Your task to perform on an android device: Open sound settings Image 0: 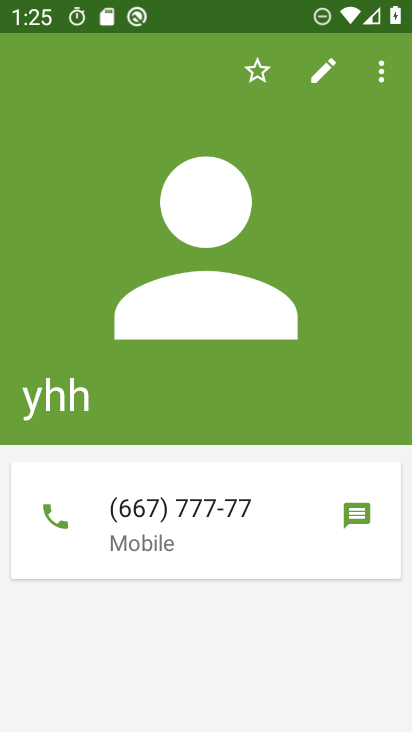
Step 0: press home button
Your task to perform on an android device: Open sound settings Image 1: 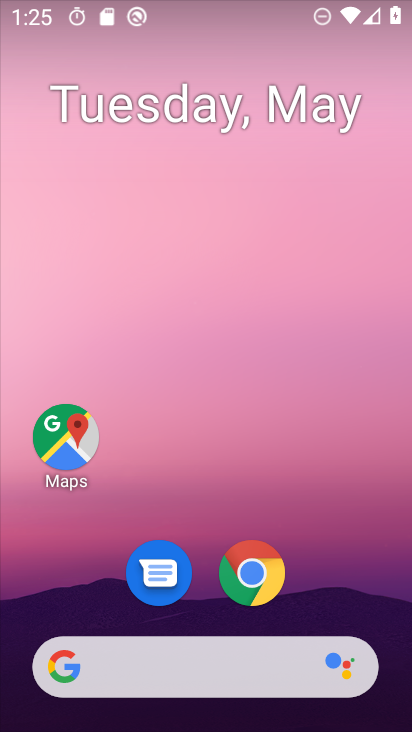
Step 1: drag from (350, 607) to (336, 146)
Your task to perform on an android device: Open sound settings Image 2: 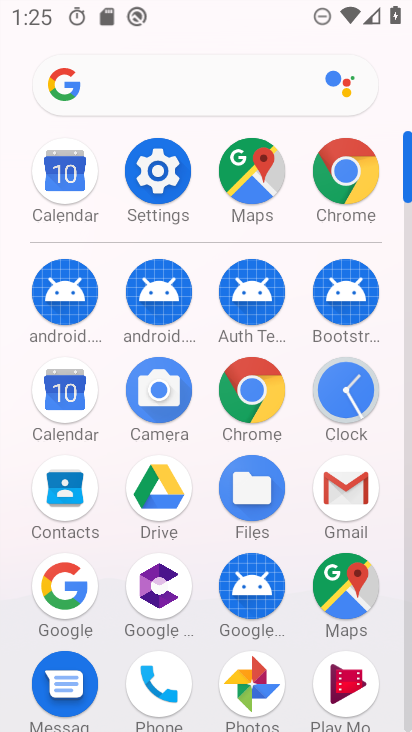
Step 2: click (143, 161)
Your task to perform on an android device: Open sound settings Image 3: 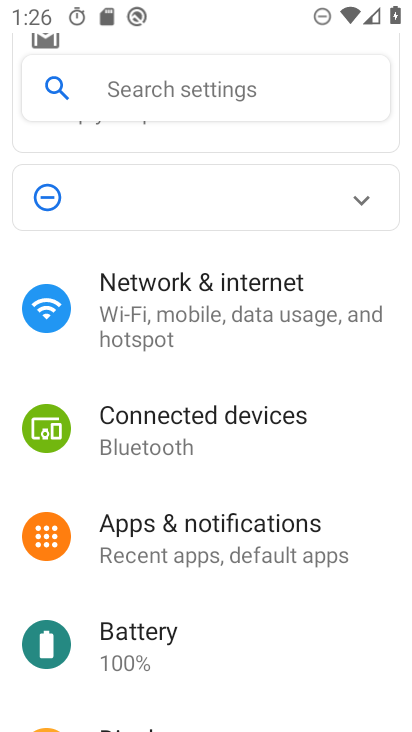
Step 3: drag from (178, 545) to (165, 228)
Your task to perform on an android device: Open sound settings Image 4: 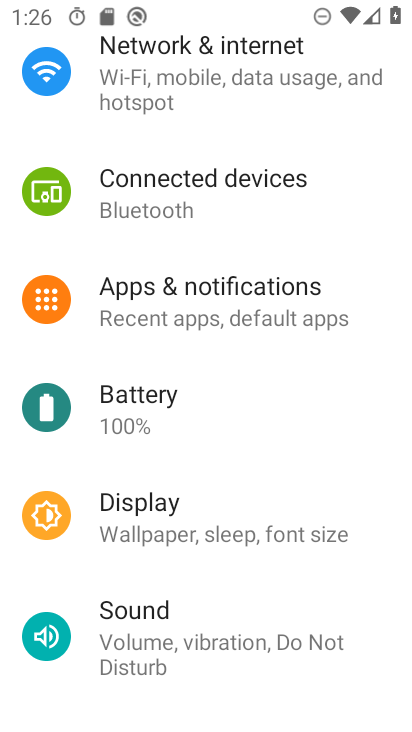
Step 4: click (129, 625)
Your task to perform on an android device: Open sound settings Image 5: 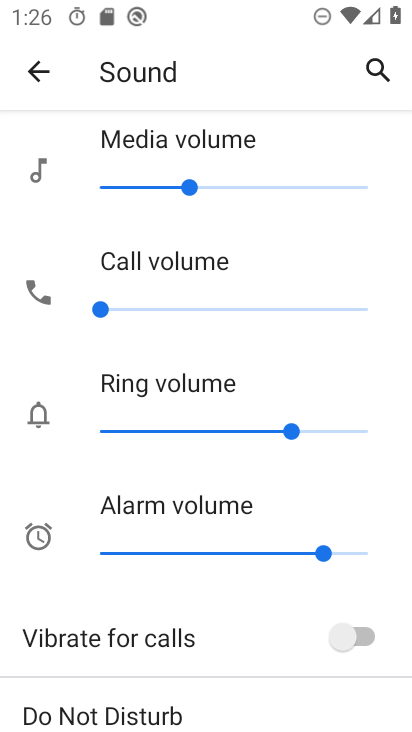
Step 5: task complete